Your task to perform on an android device: Open Android settings Image 0: 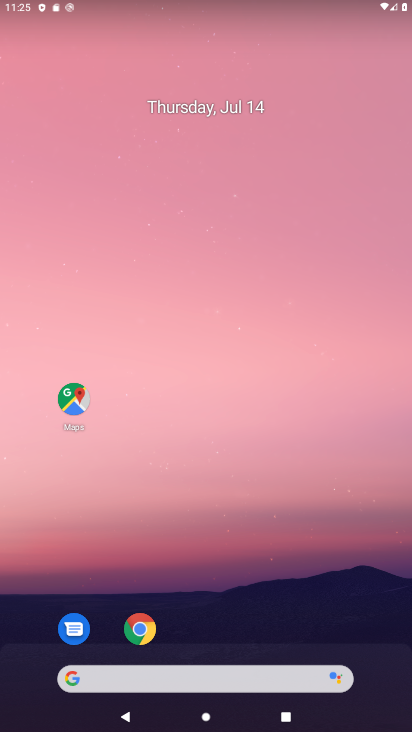
Step 0: drag from (263, 585) to (292, 129)
Your task to perform on an android device: Open Android settings Image 1: 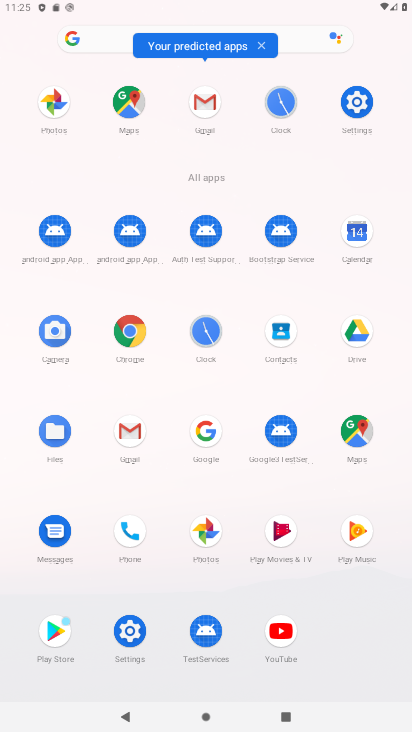
Step 1: click (356, 109)
Your task to perform on an android device: Open Android settings Image 2: 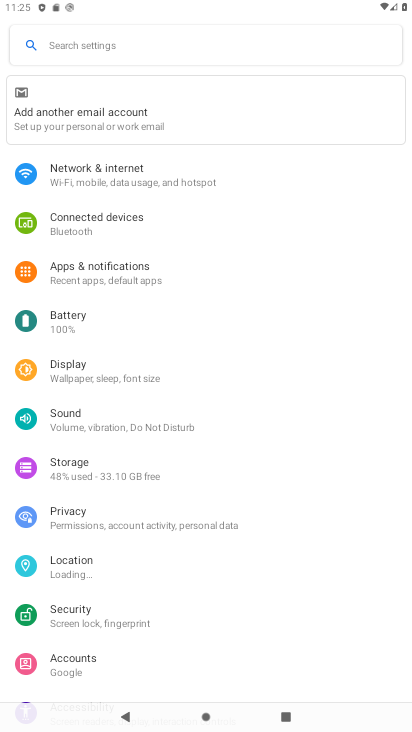
Step 2: task complete